Your task to perform on an android device: open a bookmark in the chrome app Image 0: 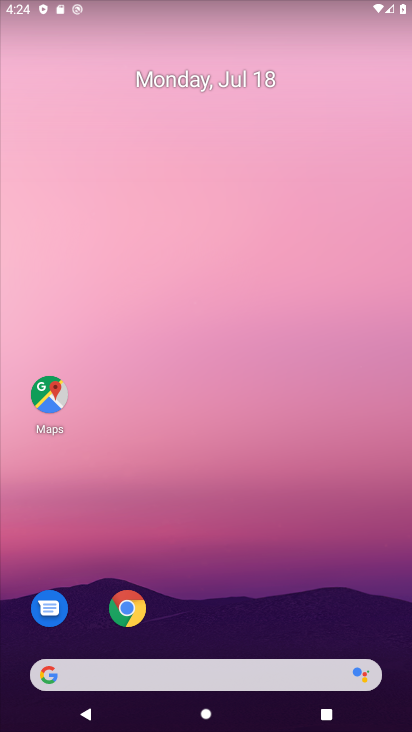
Step 0: click (135, 602)
Your task to perform on an android device: open a bookmark in the chrome app Image 1: 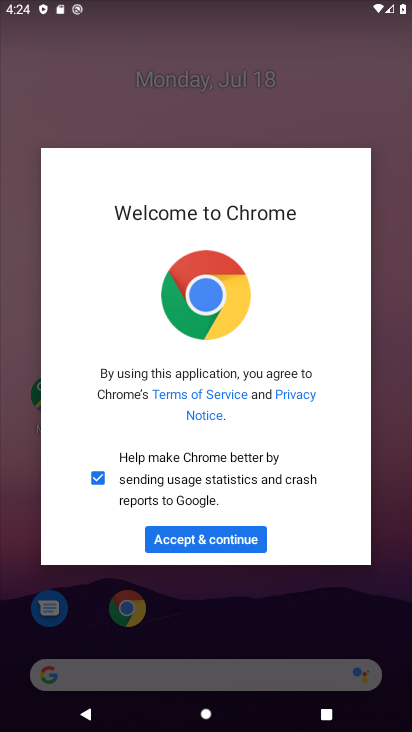
Step 1: click (198, 527)
Your task to perform on an android device: open a bookmark in the chrome app Image 2: 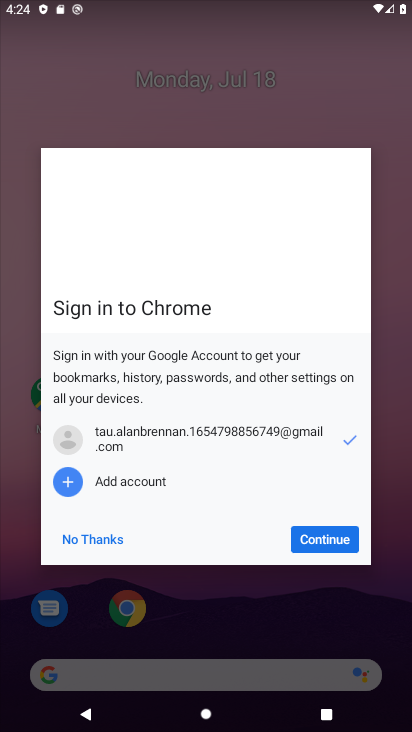
Step 2: click (316, 546)
Your task to perform on an android device: open a bookmark in the chrome app Image 3: 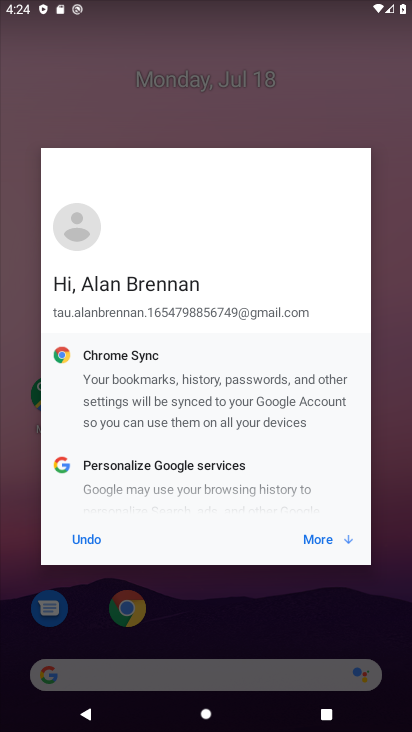
Step 3: click (321, 547)
Your task to perform on an android device: open a bookmark in the chrome app Image 4: 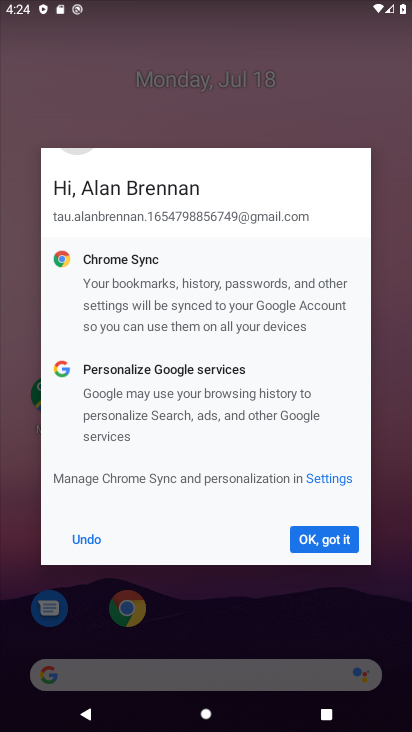
Step 4: click (320, 538)
Your task to perform on an android device: open a bookmark in the chrome app Image 5: 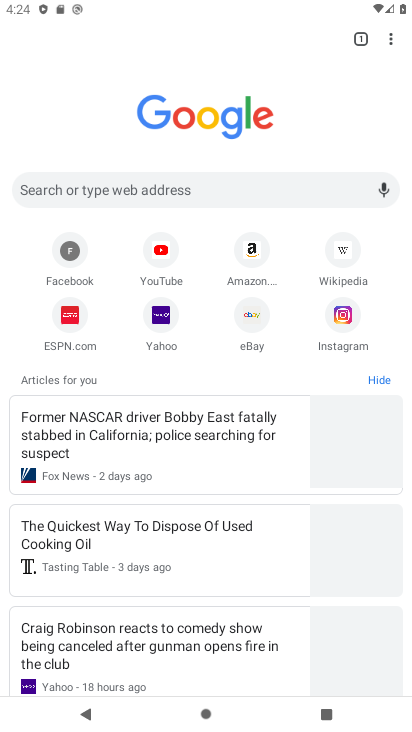
Step 5: click (396, 34)
Your task to perform on an android device: open a bookmark in the chrome app Image 6: 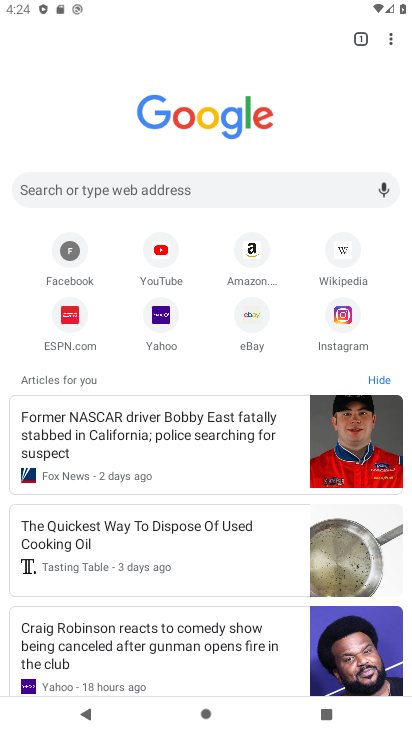
Step 6: click (395, 39)
Your task to perform on an android device: open a bookmark in the chrome app Image 7: 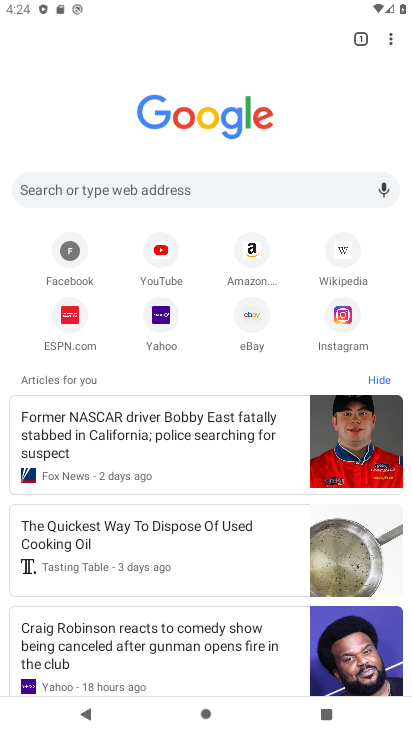
Step 7: click (394, 38)
Your task to perform on an android device: open a bookmark in the chrome app Image 8: 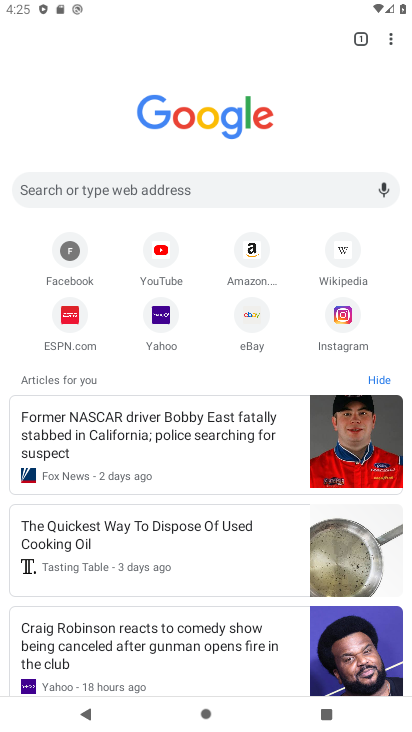
Step 8: click (394, 36)
Your task to perform on an android device: open a bookmark in the chrome app Image 9: 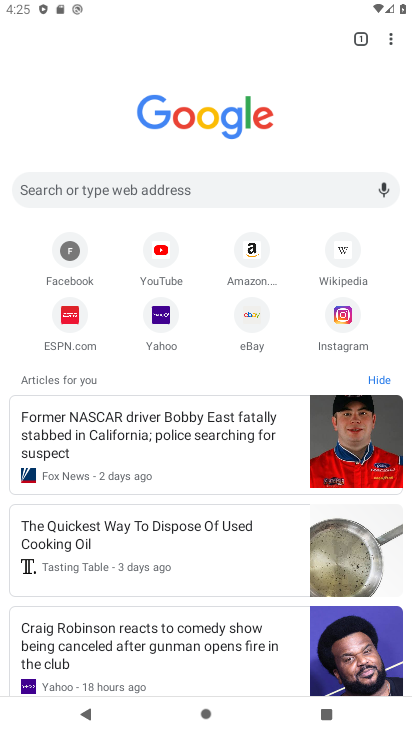
Step 9: task complete